Your task to perform on an android device: clear history in the chrome app Image 0: 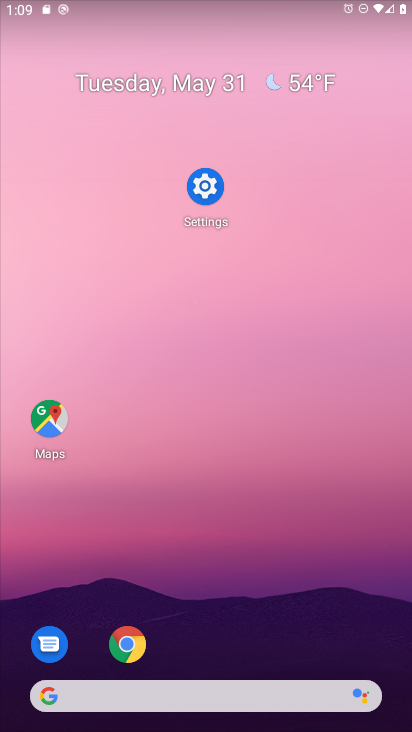
Step 0: press home button
Your task to perform on an android device: clear history in the chrome app Image 1: 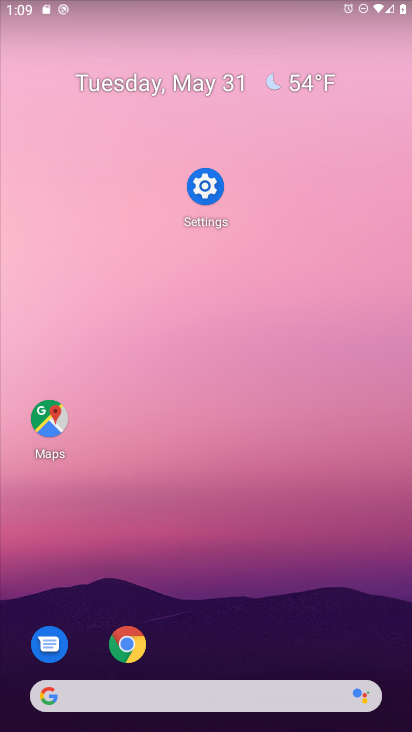
Step 1: click (134, 649)
Your task to perform on an android device: clear history in the chrome app Image 2: 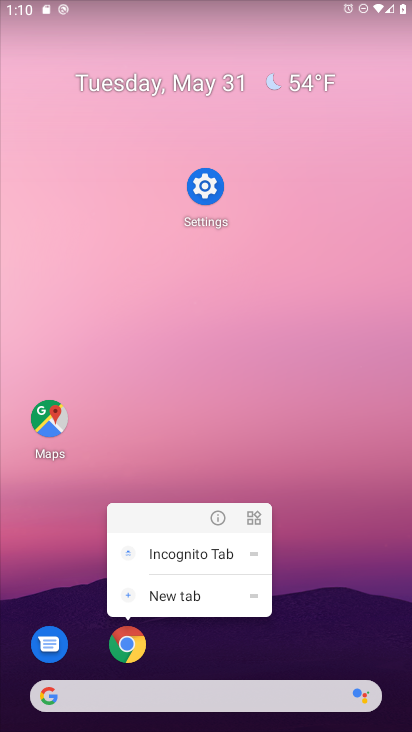
Step 2: click (132, 647)
Your task to perform on an android device: clear history in the chrome app Image 3: 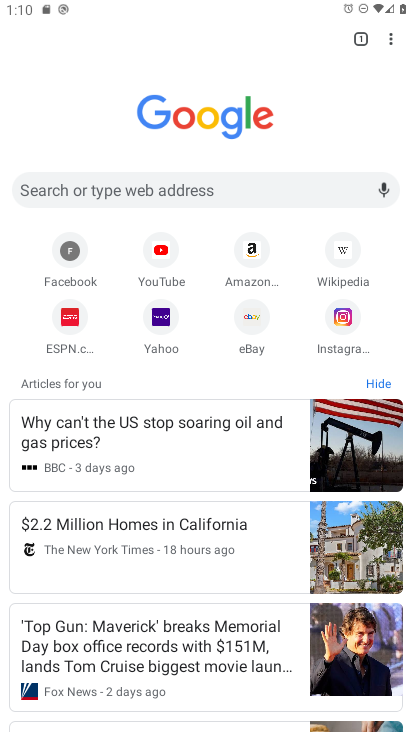
Step 3: drag from (394, 40) to (256, 224)
Your task to perform on an android device: clear history in the chrome app Image 4: 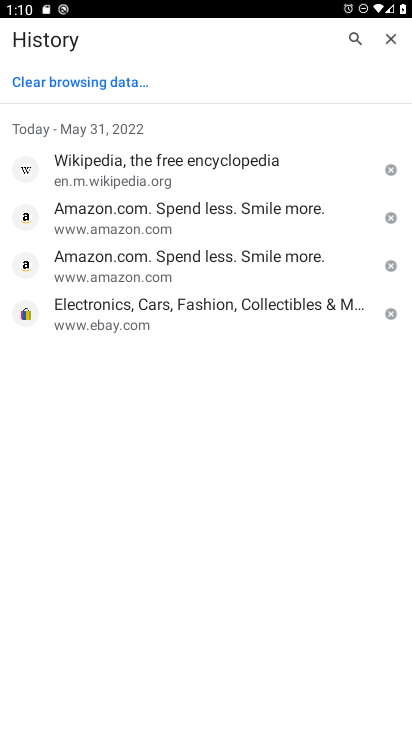
Step 4: click (67, 82)
Your task to perform on an android device: clear history in the chrome app Image 5: 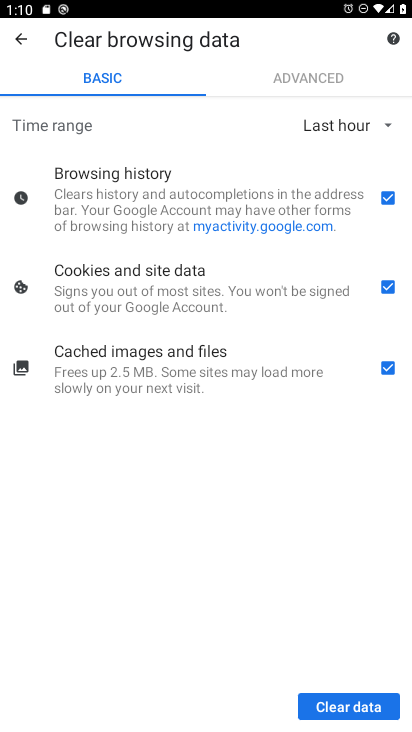
Step 5: click (347, 710)
Your task to perform on an android device: clear history in the chrome app Image 6: 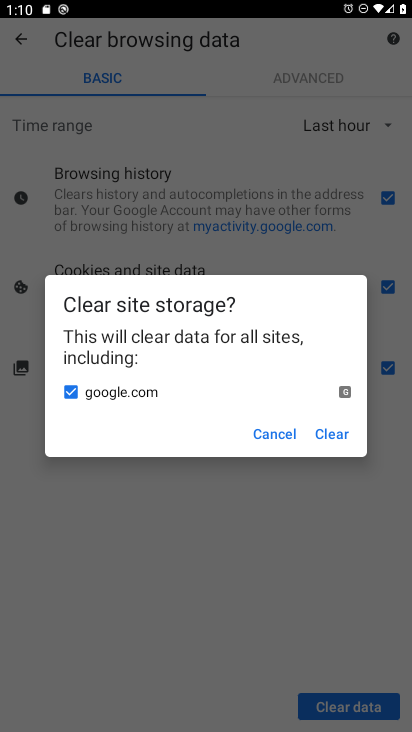
Step 6: click (326, 434)
Your task to perform on an android device: clear history in the chrome app Image 7: 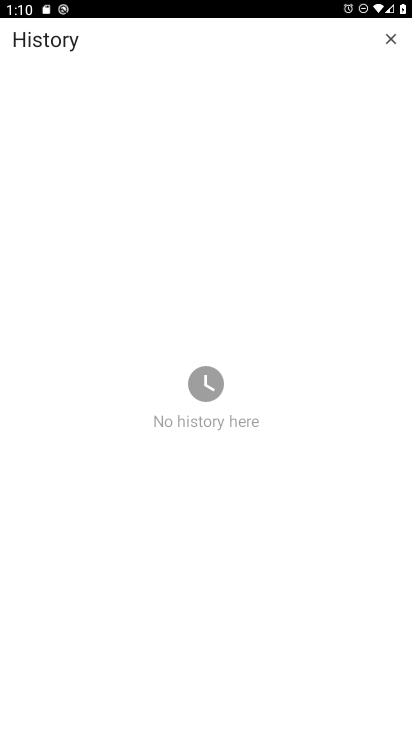
Step 7: task complete